Your task to perform on an android device: turn on translation in the chrome app Image 0: 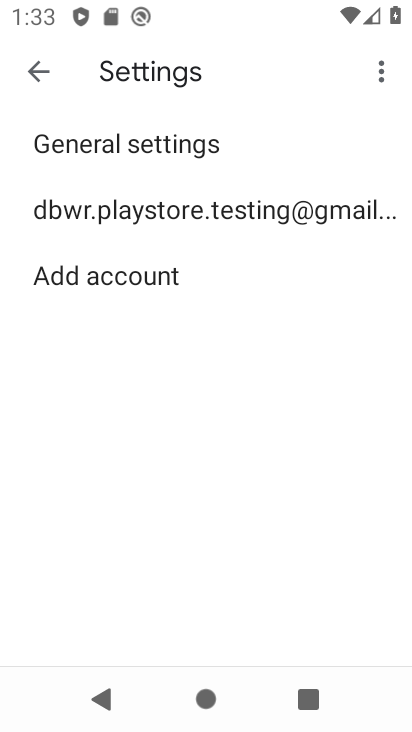
Step 0: press home button
Your task to perform on an android device: turn on translation in the chrome app Image 1: 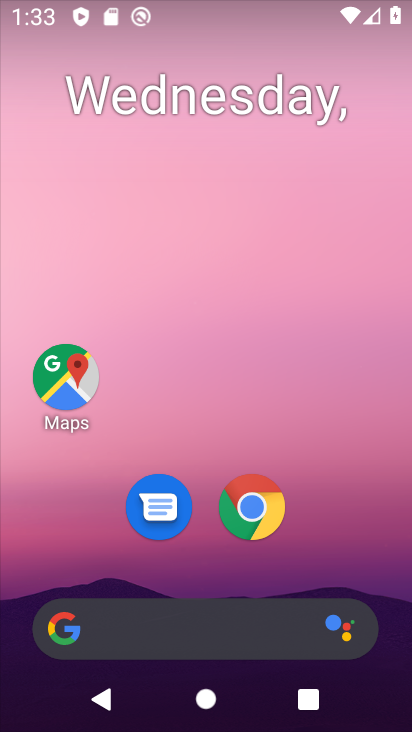
Step 1: click (254, 501)
Your task to perform on an android device: turn on translation in the chrome app Image 2: 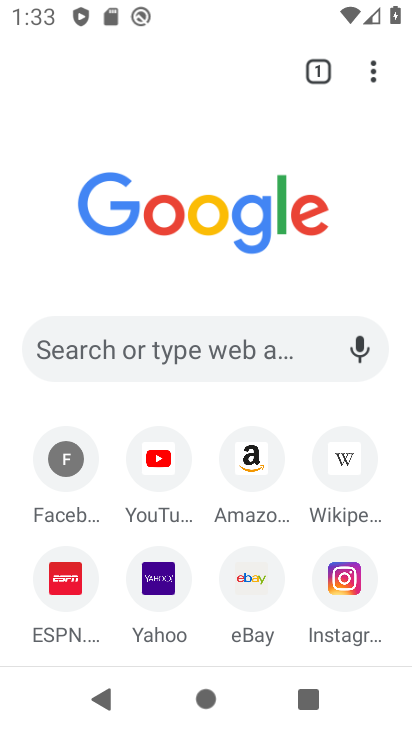
Step 2: click (372, 72)
Your task to perform on an android device: turn on translation in the chrome app Image 3: 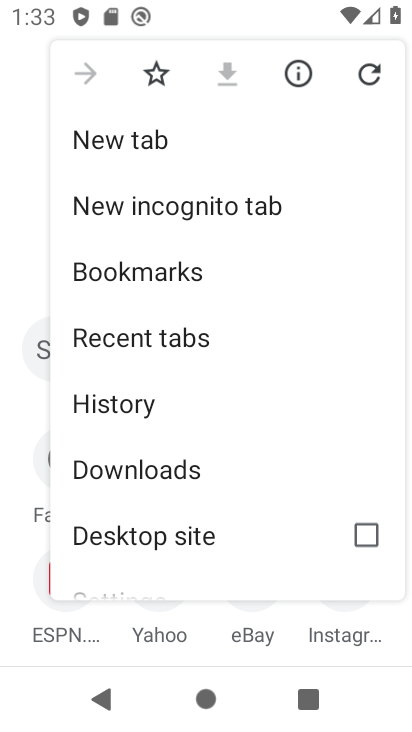
Step 3: drag from (271, 548) to (293, 240)
Your task to perform on an android device: turn on translation in the chrome app Image 4: 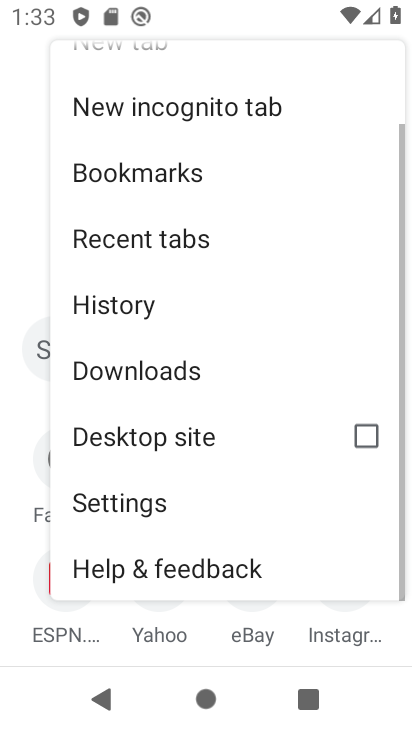
Step 4: click (124, 485)
Your task to perform on an android device: turn on translation in the chrome app Image 5: 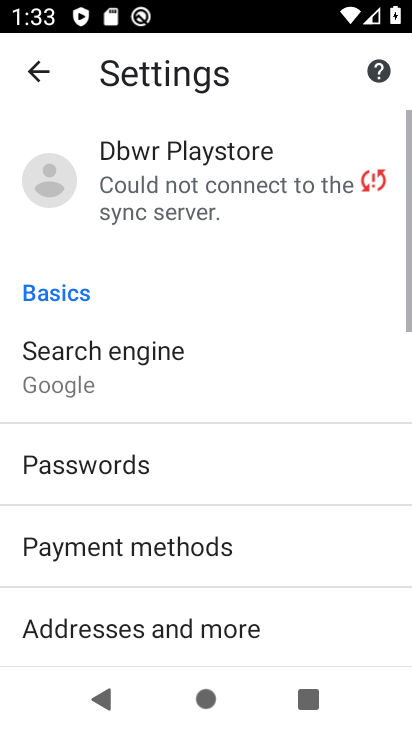
Step 5: drag from (312, 512) to (300, 234)
Your task to perform on an android device: turn on translation in the chrome app Image 6: 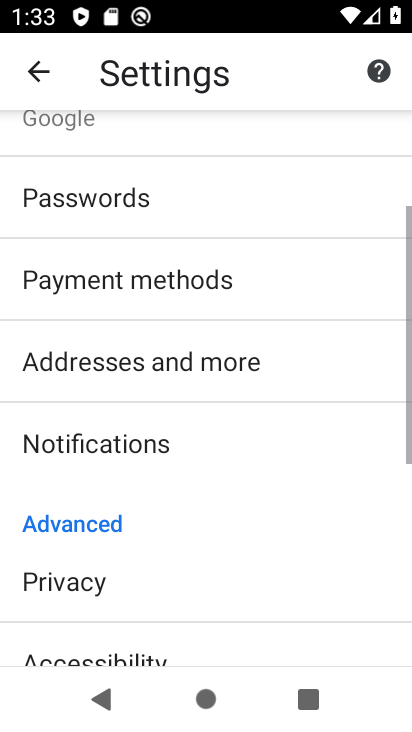
Step 6: drag from (300, 517) to (299, 329)
Your task to perform on an android device: turn on translation in the chrome app Image 7: 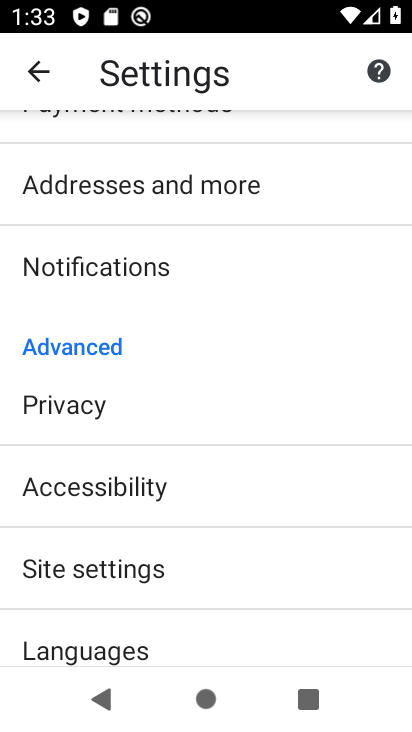
Step 7: click (132, 644)
Your task to perform on an android device: turn on translation in the chrome app Image 8: 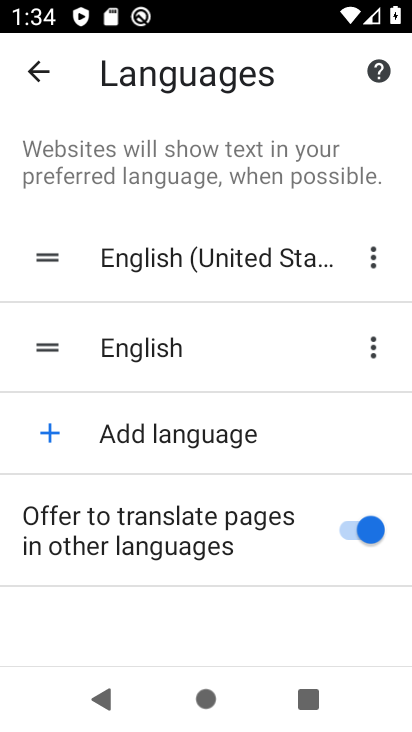
Step 8: task complete